Your task to perform on an android device: Toggle the flashlight Image 0: 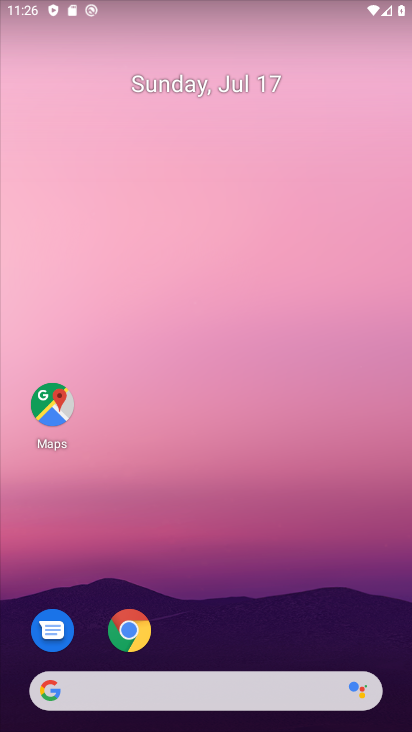
Step 0: drag from (207, 637) to (232, 158)
Your task to perform on an android device: Toggle the flashlight Image 1: 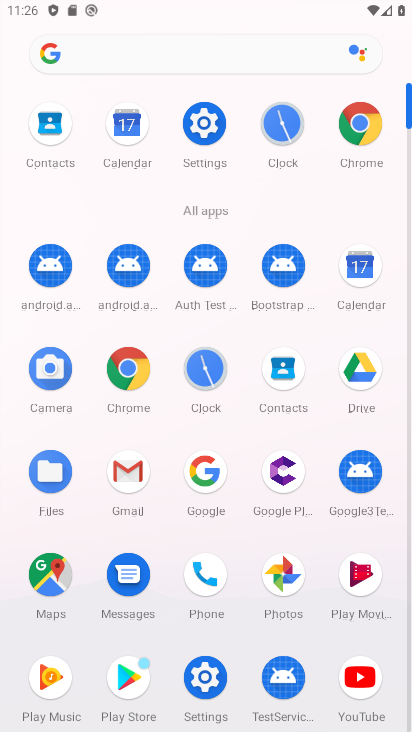
Step 1: click (208, 678)
Your task to perform on an android device: Toggle the flashlight Image 2: 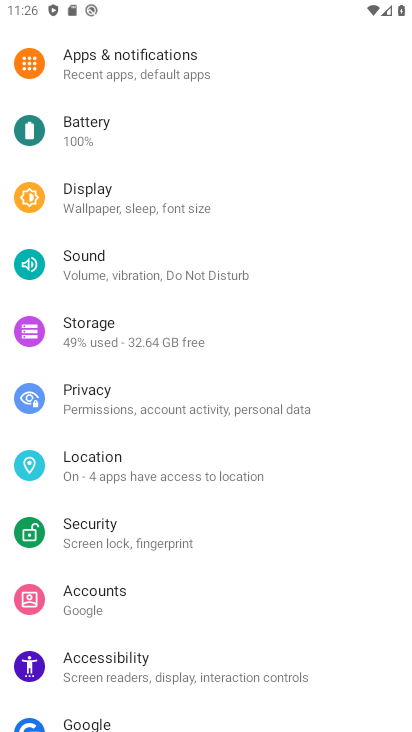
Step 2: drag from (165, 154) to (168, 486)
Your task to perform on an android device: Toggle the flashlight Image 3: 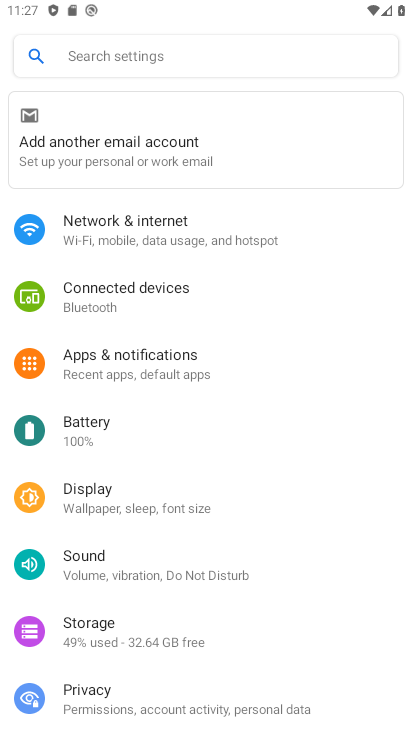
Step 3: click (184, 40)
Your task to perform on an android device: Toggle the flashlight Image 4: 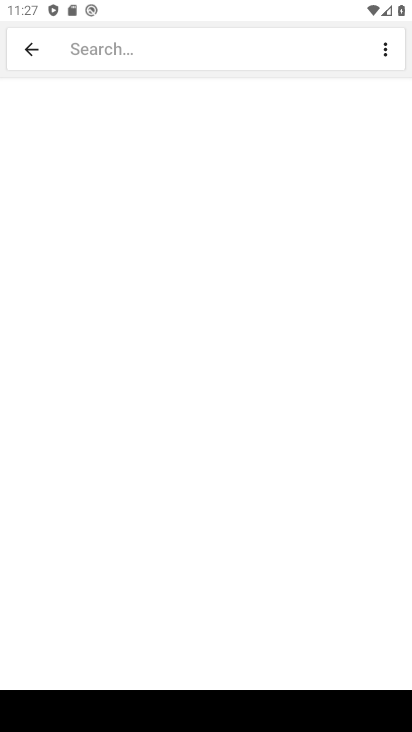
Step 4: type "flashlight"
Your task to perform on an android device: Toggle the flashlight Image 5: 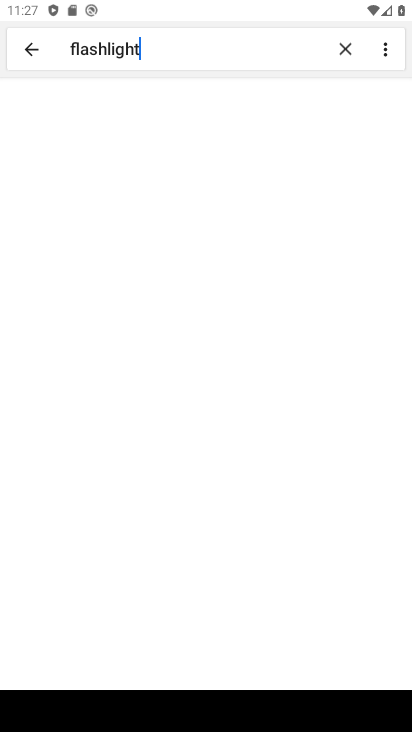
Step 5: click (159, 158)
Your task to perform on an android device: Toggle the flashlight Image 6: 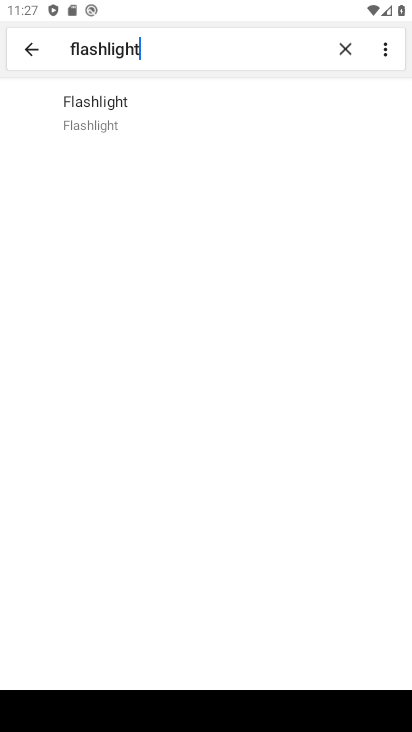
Step 6: click (121, 106)
Your task to perform on an android device: Toggle the flashlight Image 7: 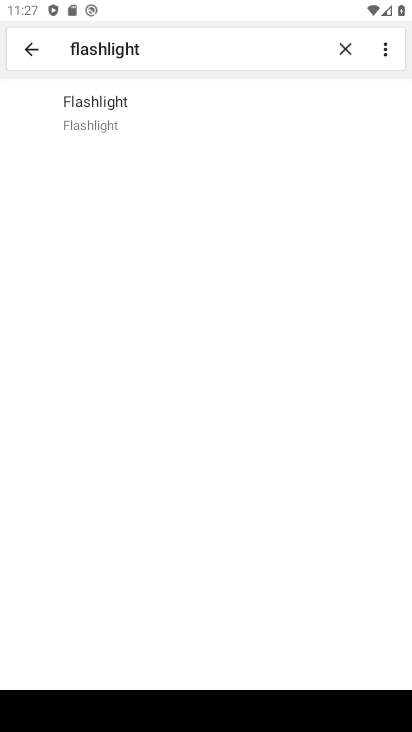
Step 7: click (132, 116)
Your task to perform on an android device: Toggle the flashlight Image 8: 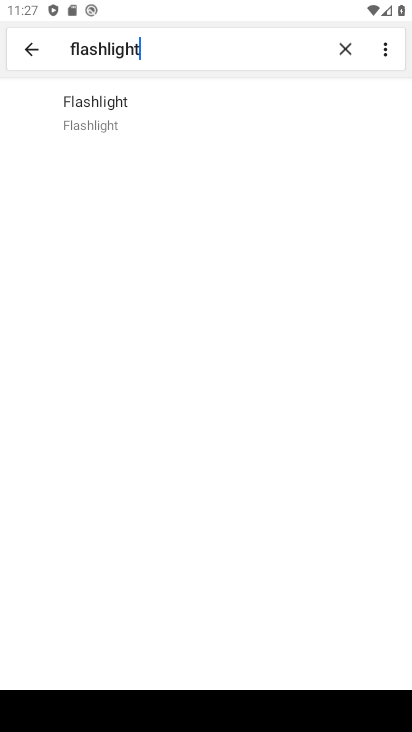
Step 8: click (109, 142)
Your task to perform on an android device: Toggle the flashlight Image 9: 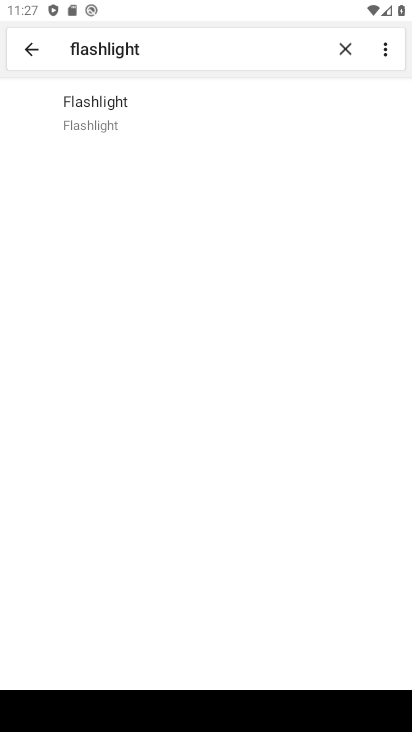
Step 9: task complete